Your task to perform on an android device: open app "File Manager" Image 0: 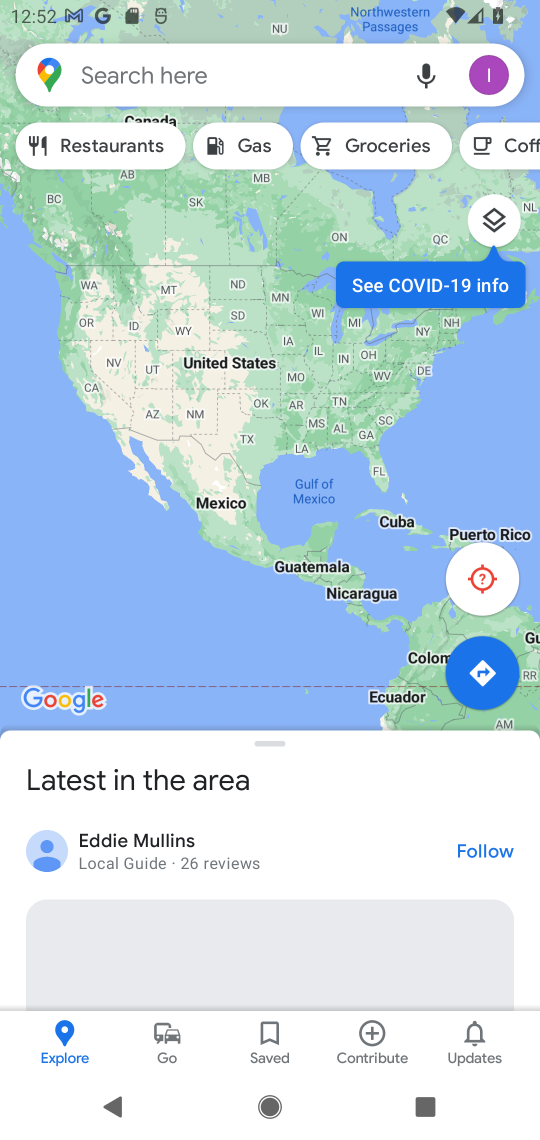
Step 0: press home button
Your task to perform on an android device: open app "File Manager" Image 1: 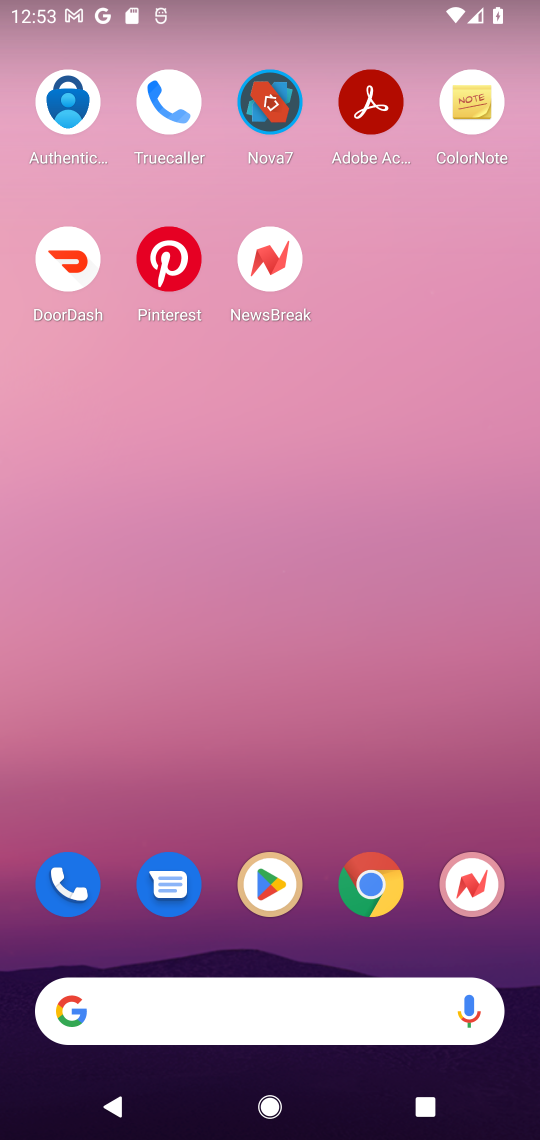
Step 1: drag from (287, 994) to (263, 96)
Your task to perform on an android device: open app "File Manager" Image 2: 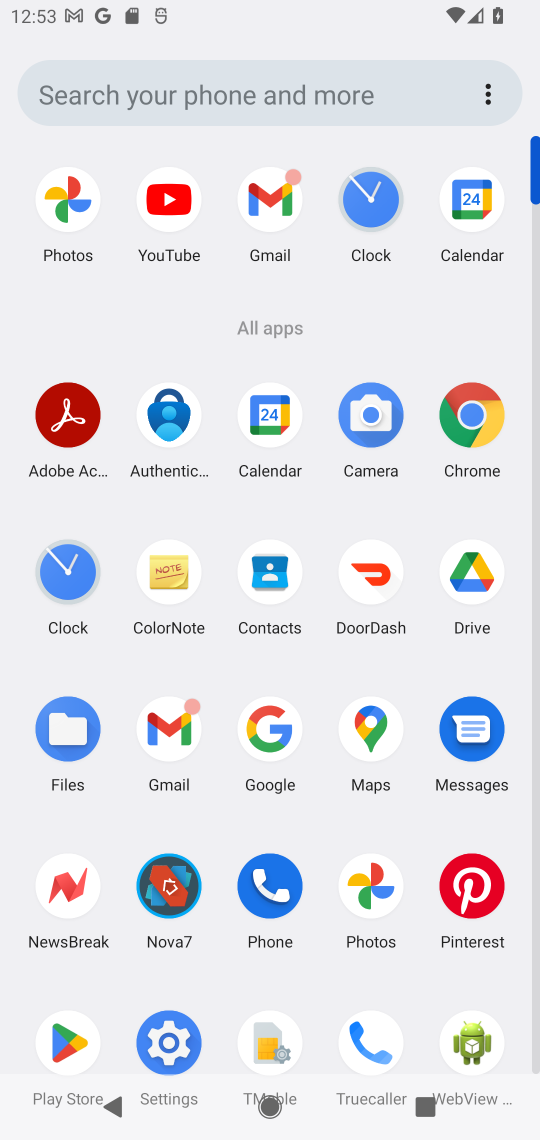
Step 2: click (71, 1040)
Your task to perform on an android device: open app "File Manager" Image 3: 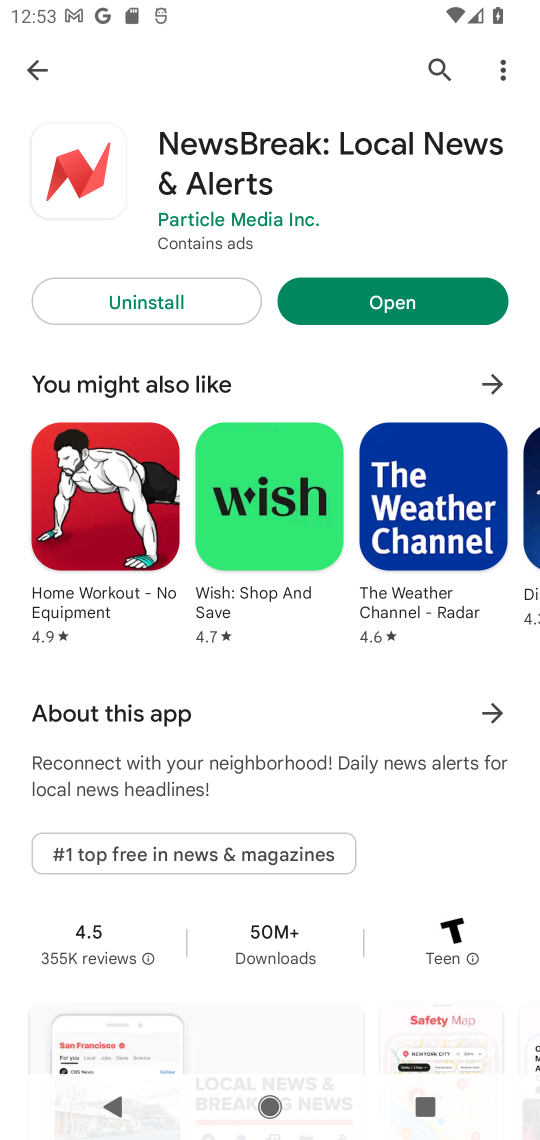
Step 3: press back button
Your task to perform on an android device: open app "File Manager" Image 4: 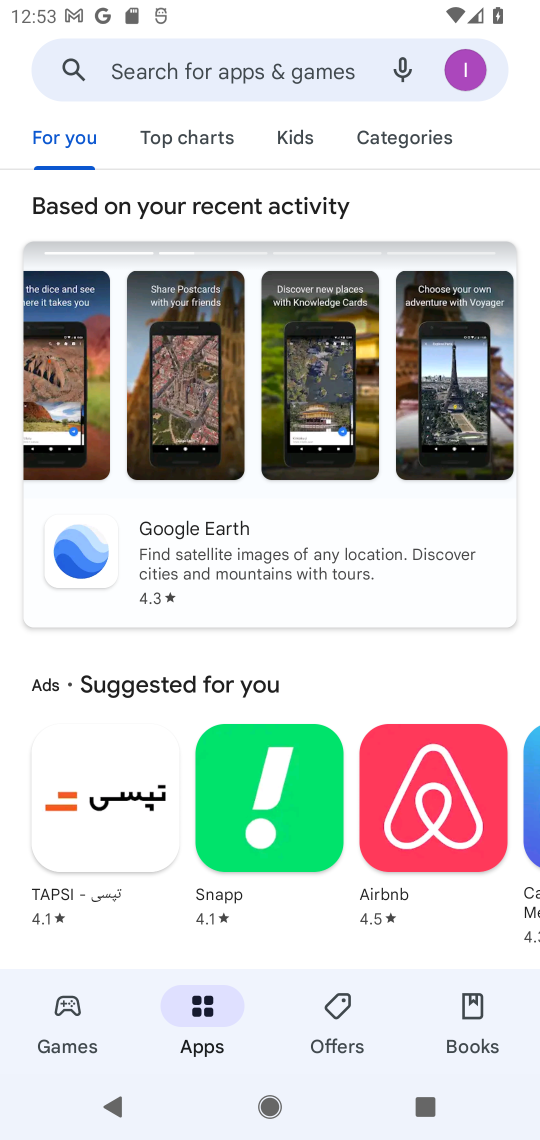
Step 4: click (244, 76)
Your task to perform on an android device: open app "File Manager" Image 5: 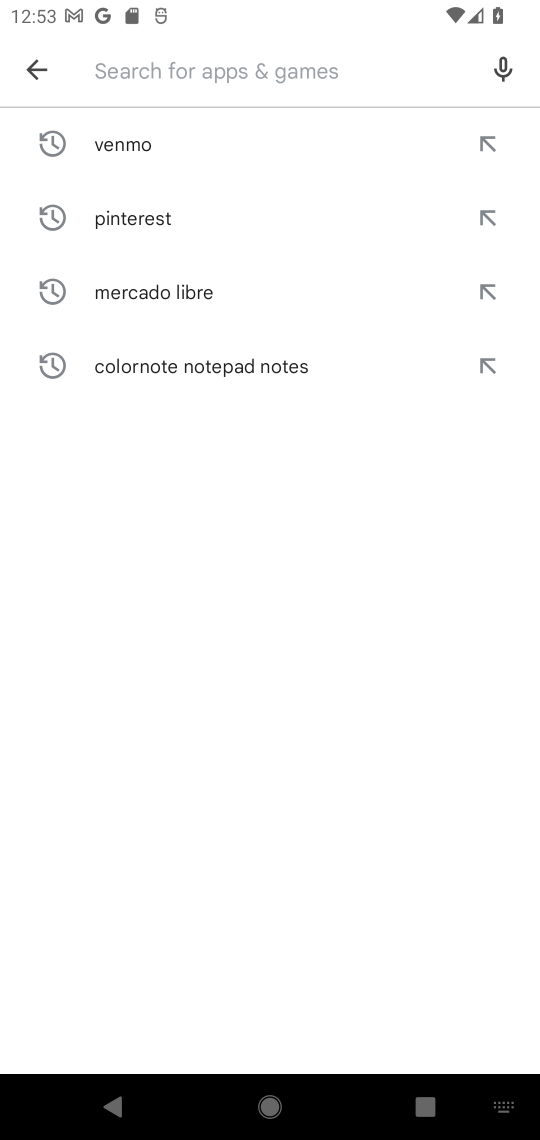
Step 5: type "File Manager"
Your task to perform on an android device: open app "File Manager" Image 6: 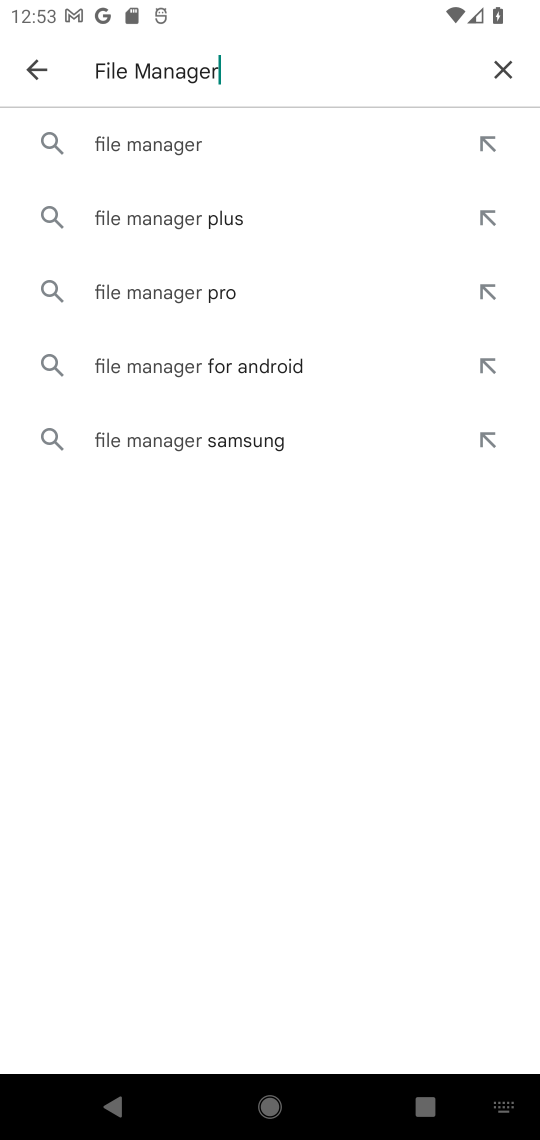
Step 6: click (187, 144)
Your task to perform on an android device: open app "File Manager" Image 7: 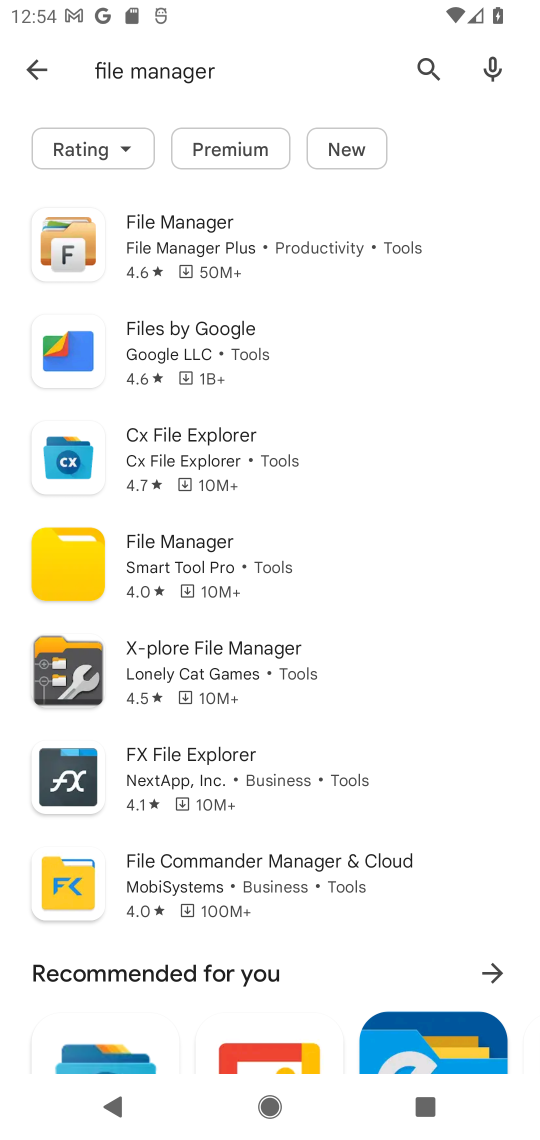
Step 7: task complete